Your task to perform on an android device: Open the calendar app, open the side menu, and click the "Day" option Image 0: 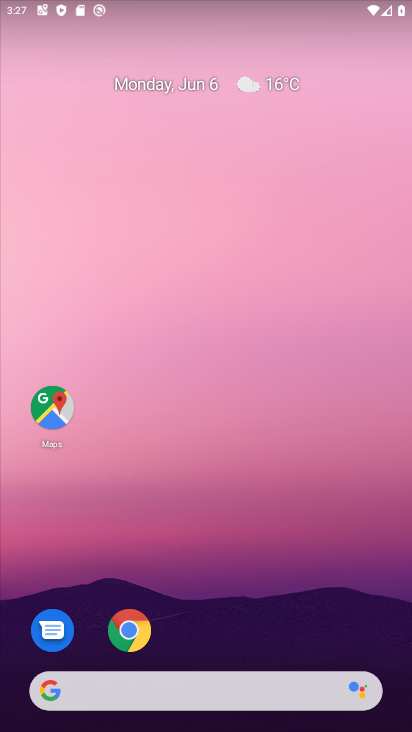
Step 0: drag from (248, 525) to (344, 212)
Your task to perform on an android device: Open the calendar app, open the side menu, and click the "Day" option Image 1: 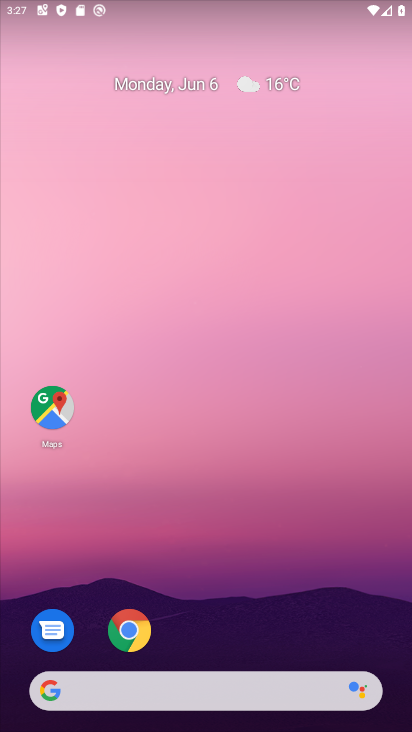
Step 1: drag from (219, 638) to (270, 172)
Your task to perform on an android device: Open the calendar app, open the side menu, and click the "Day" option Image 2: 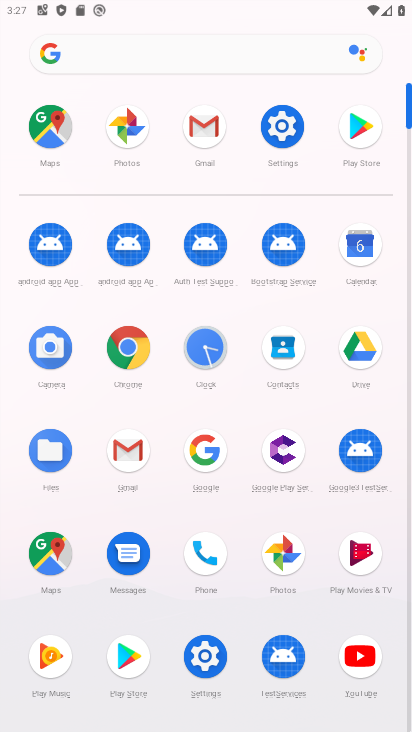
Step 2: click (356, 239)
Your task to perform on an android device: Open the calendar app, open the side menu, and click the "Day" option Image 3: 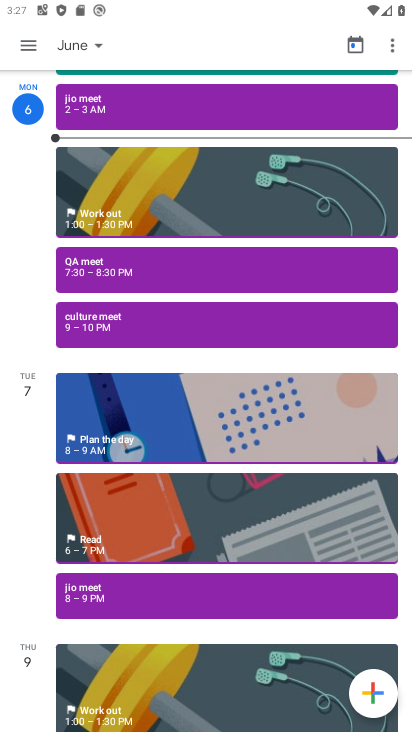
Step 3: click (25, 43)
Your task to perform on an android device: Open the calendar app, open the side menu, and click the "Day" option Image 4: 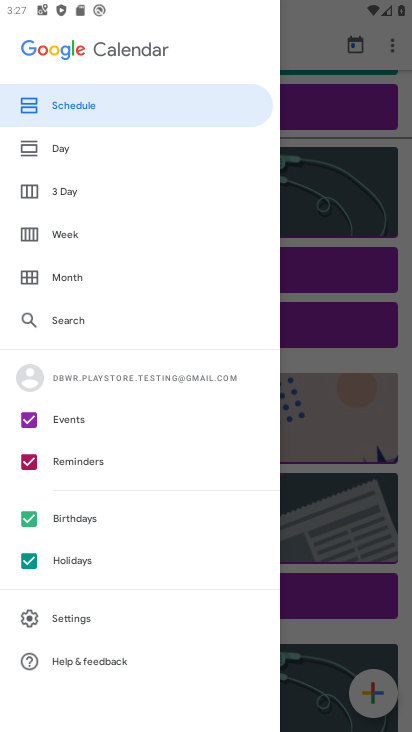
Step 4: click (100, 143)
Your task to perform on an android device: Open the calendar app, open the side menu, and click the "Day" option Image 5: 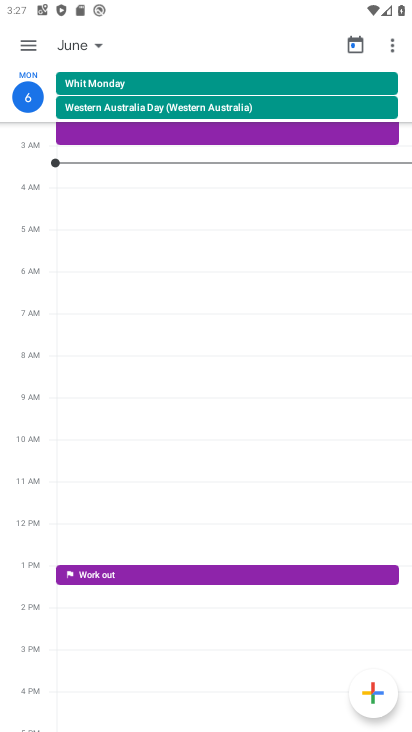
Step 5: task complete